Your task to perform on an android device: visit the assistant section in the google photos Image 0: 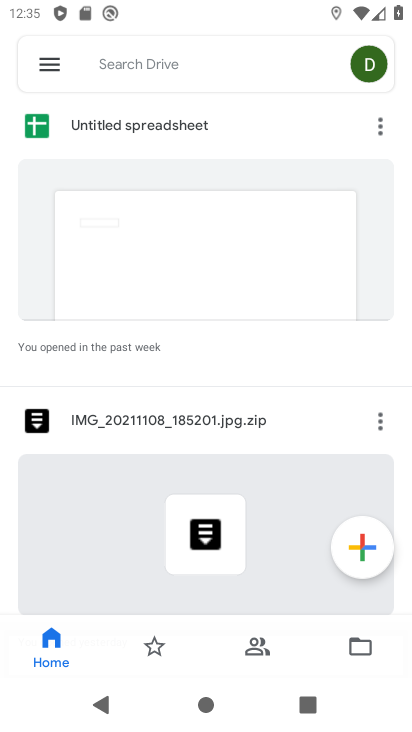
Step 0: press home button
Your task to perform on an android device: visit the assistant section in the google photos Image 1: 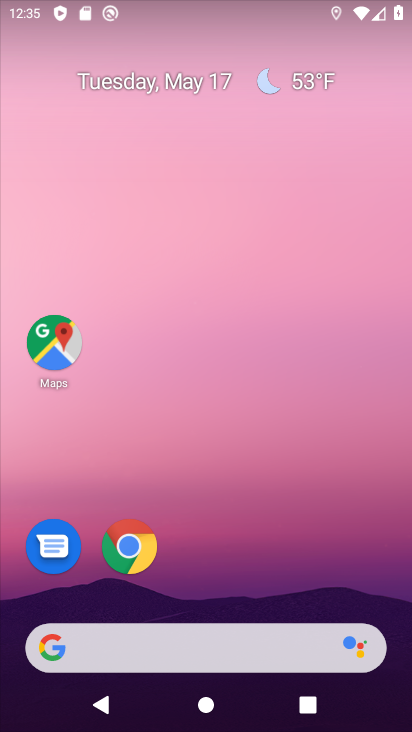
Step 1: drag from (201, 569) to (221, 177)
Your task to perform on an android device: visit the assistant section in the google photos Image 2: 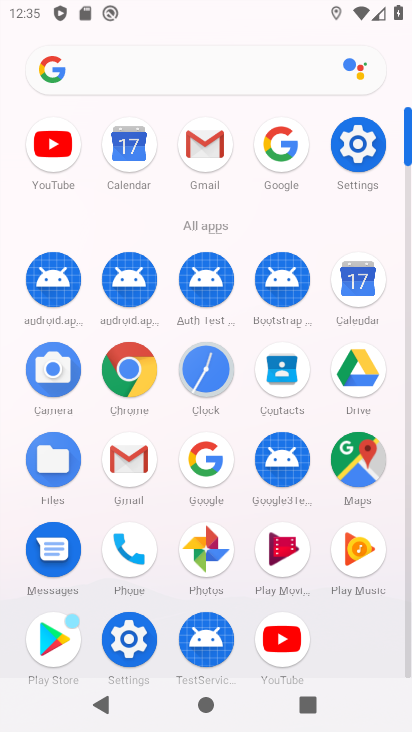
Step 2: click (219, 532)
Your task to perform on an android device: visit the assistant section in the google photos Image 3: 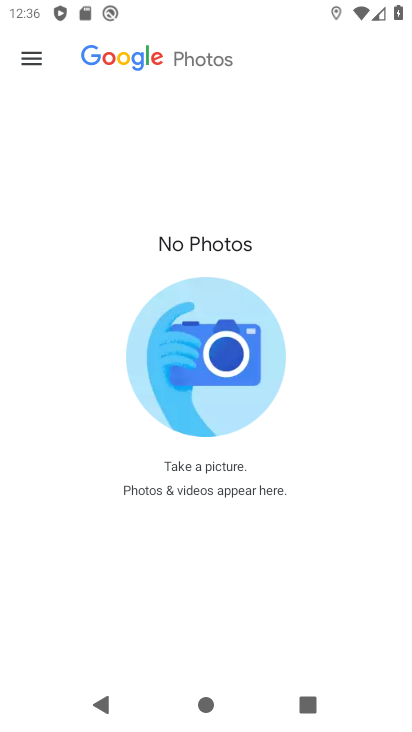
Step 3: click (24, 51)
Your task to perform on an android device: visit the assistant section in the google photos Image 4: 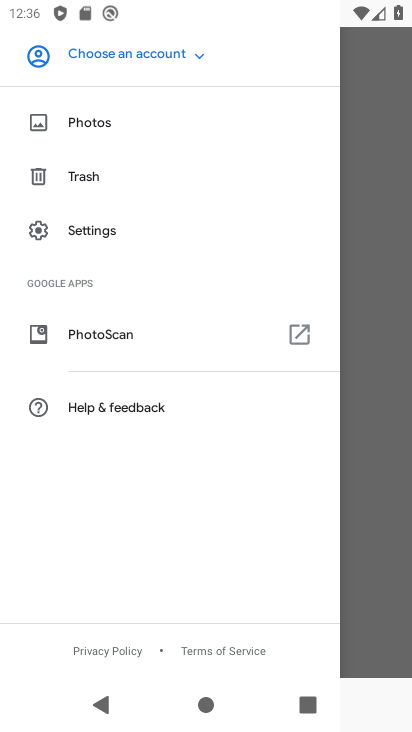
Step 4: click (73, 112)
Your task to perform on an android device: visit the assistant section in the google photos Image 5: 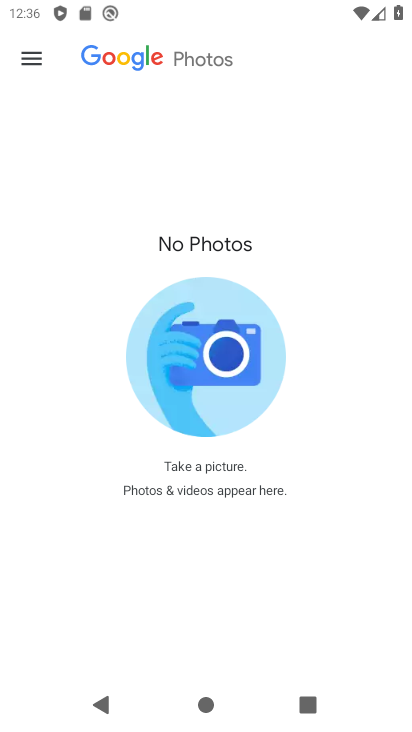
Step 5: click (30, 62)
Your task to perform on an android device: visit the assistant section in the google photos Image 6: 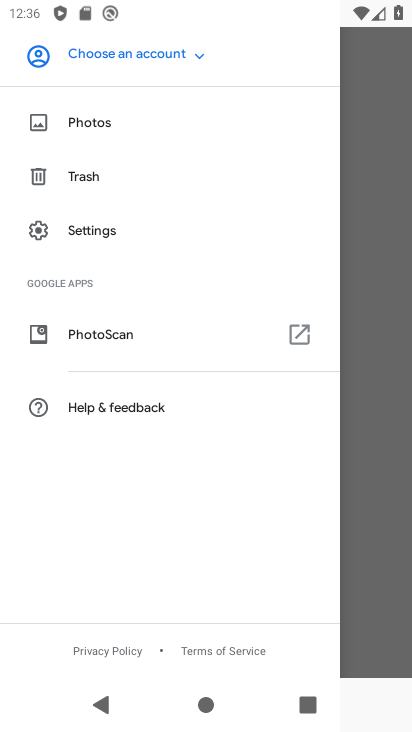
Step 6: click (167, 56)
Your task to perform on an android device: visit the assistant section in the google photos Image 7: 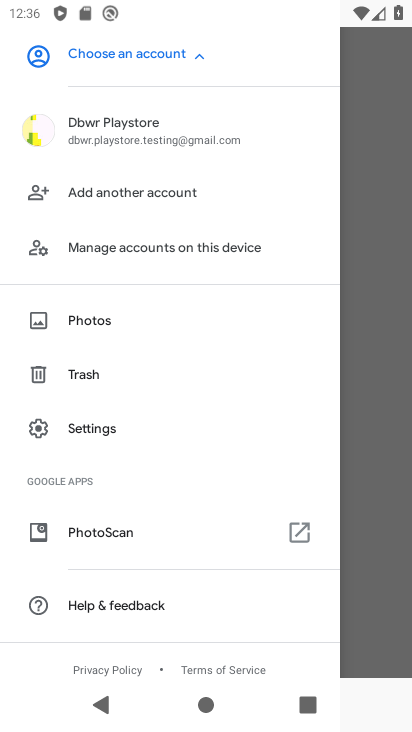
Step 7: click (166, 141)
Your task to perform on an android device: visit the assistant section in the google photos Image 8: 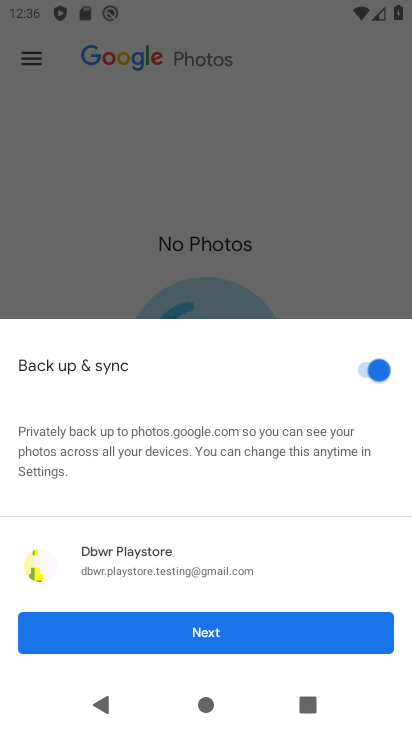
Step 8: click (205, 622)
Your task to perform on an android device: visit the assistant section in the google photos Image 9: 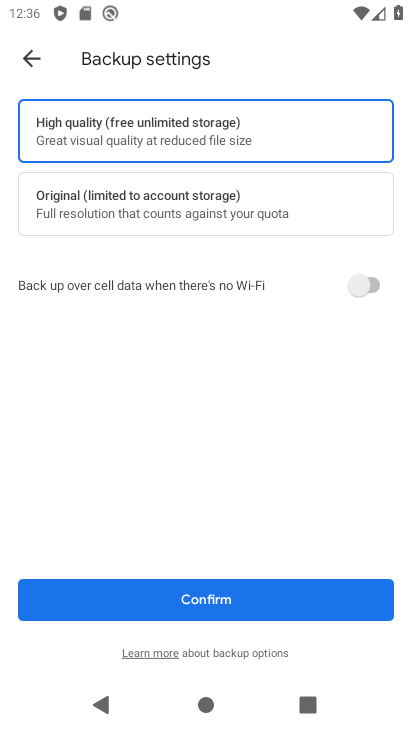
Step 9: click (199, 604)
Your task to perform on an android device: visit the assistant section in the google photos Image 10: 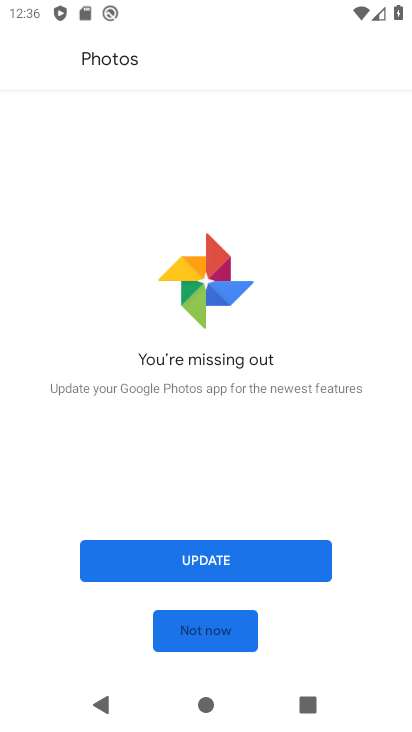
Step 10: click (225, 627)
Your task to perform on an android device: visit the assistant section in the google photos Image 11: 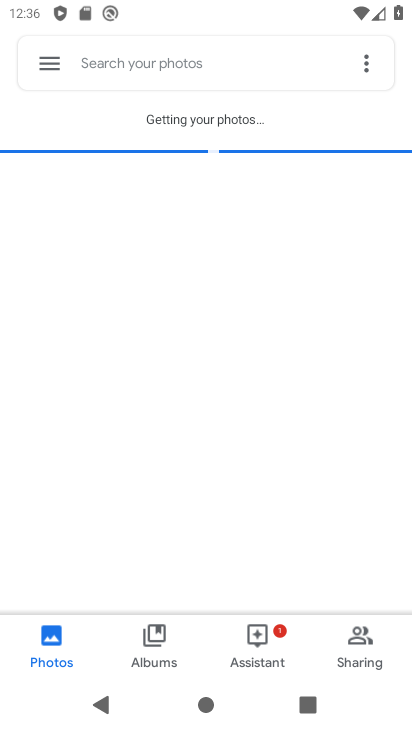
Step 11: click (264, 647)
Your task to perform on an android device: visit the assistant section in the google photos Image 12: 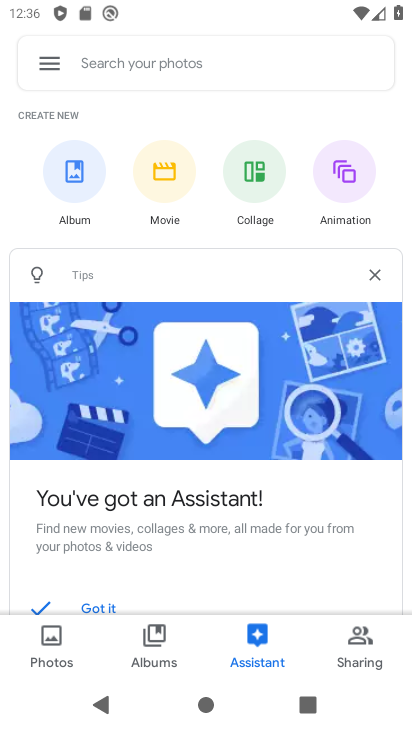
Step 12: task complete